Your task to perform on an android device: What's a good restaurant in Chicago? Image 0: 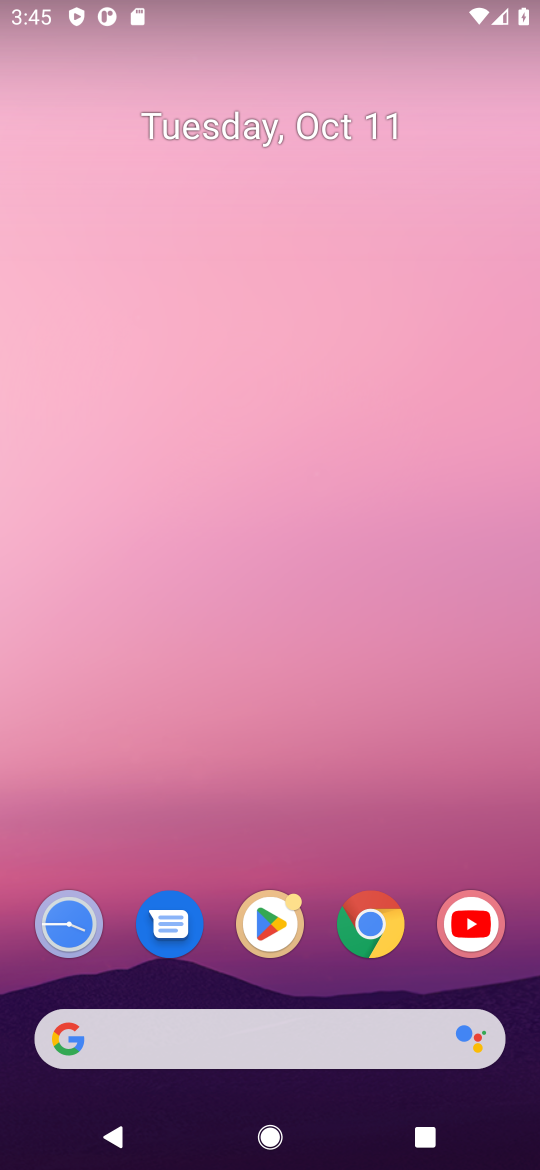
Step 0: press home button
Your task to perform on an android device: What's a good restaurant in Chicago? Image 1: 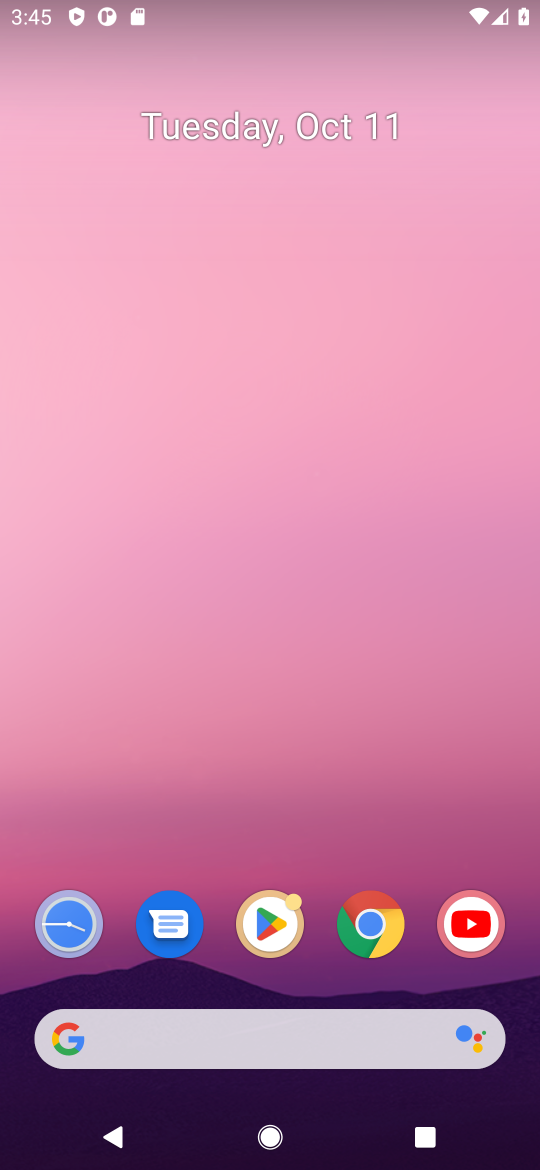
Step 1: drag from (330, 961) to (295, 100)
Your task to perform on an android device: What's a good restaurant in Chicago? Image 2: 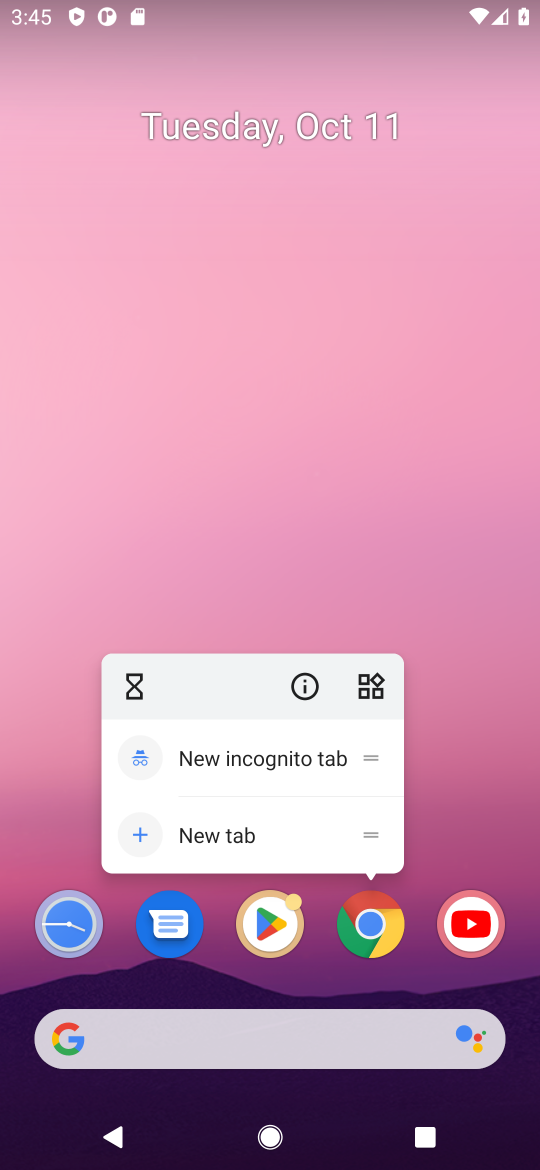
Step 2: click (448, 761)
Your task to perform on an android device: What's a good restaurant in Chicago? Image 3: 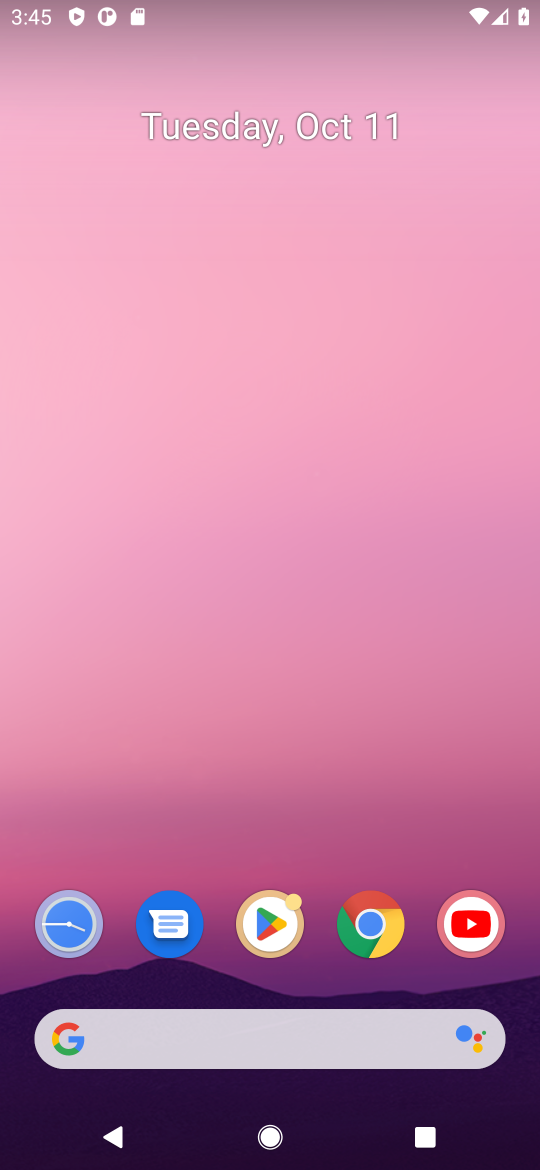
Step 3: drag from (222, 971) to (220, 197)
Your task to perform on an android device: What's a good restaurant in Chicago? Image 4: 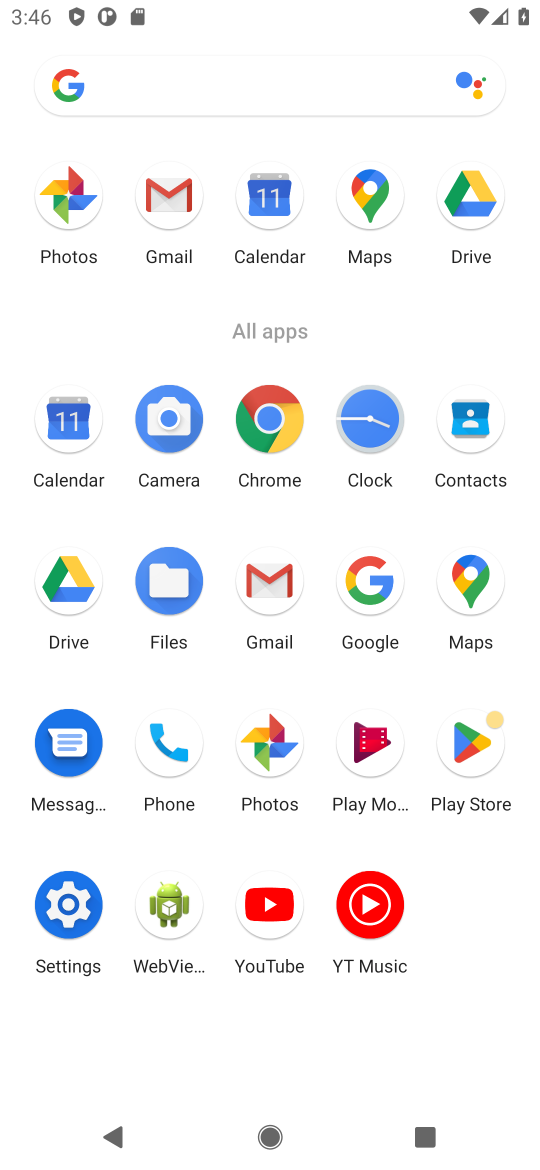
Step 4: click (278, 423)
Your task to perform on an android device: What's a good restaurant in Chicago? Image 5: 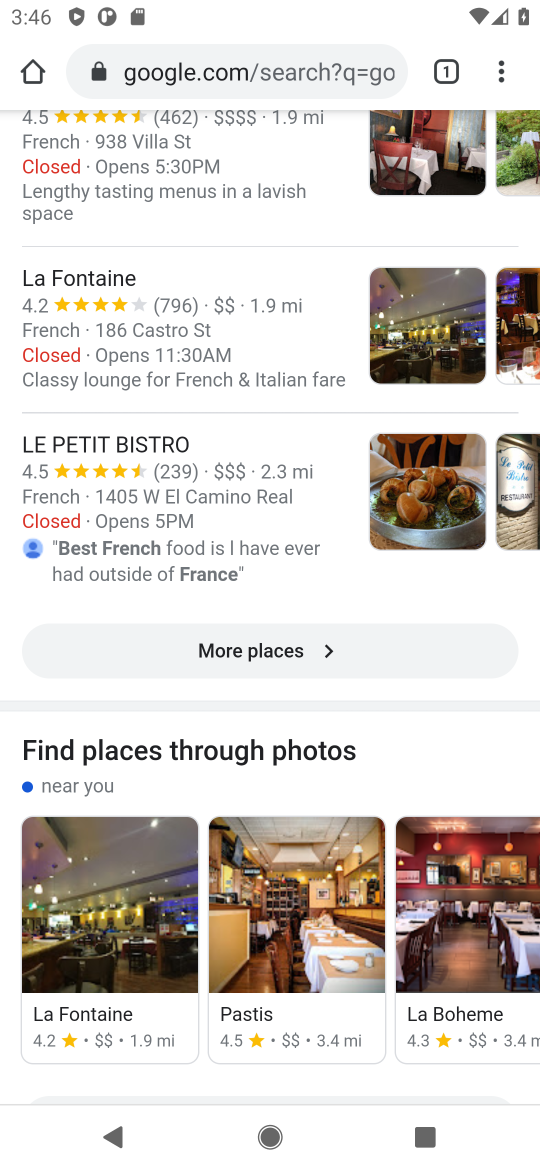
Step 5: click (156, 76)
Your task to perform on an android device: What's a good restaurant in Chicago? Image 6: 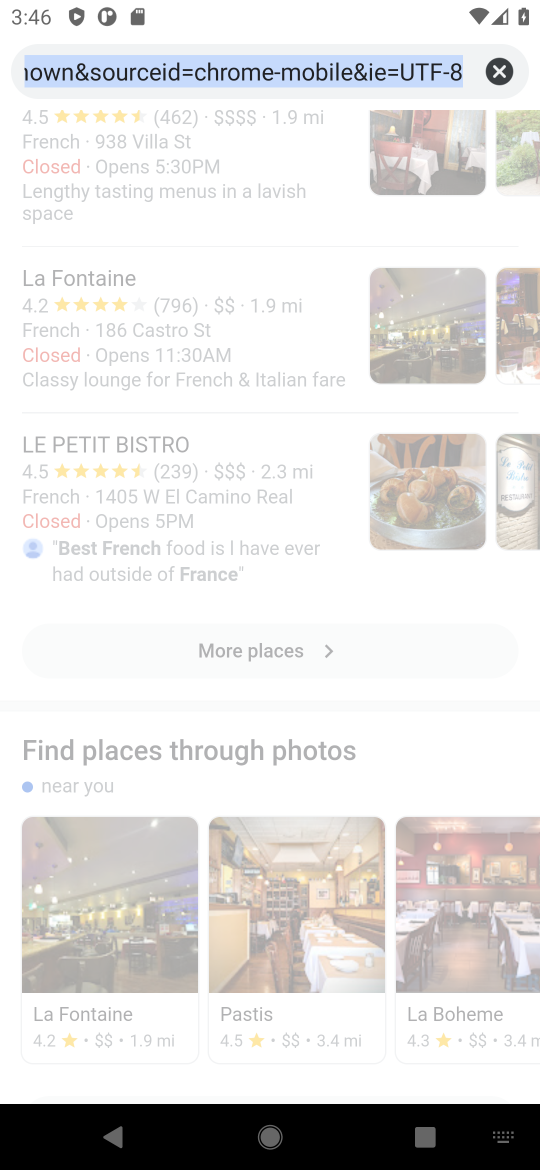
Step 6: type "What's a good restaurant in Chicago?"
Your task to perform on an android device: What's a good restaurant in Chicago? Image 7: 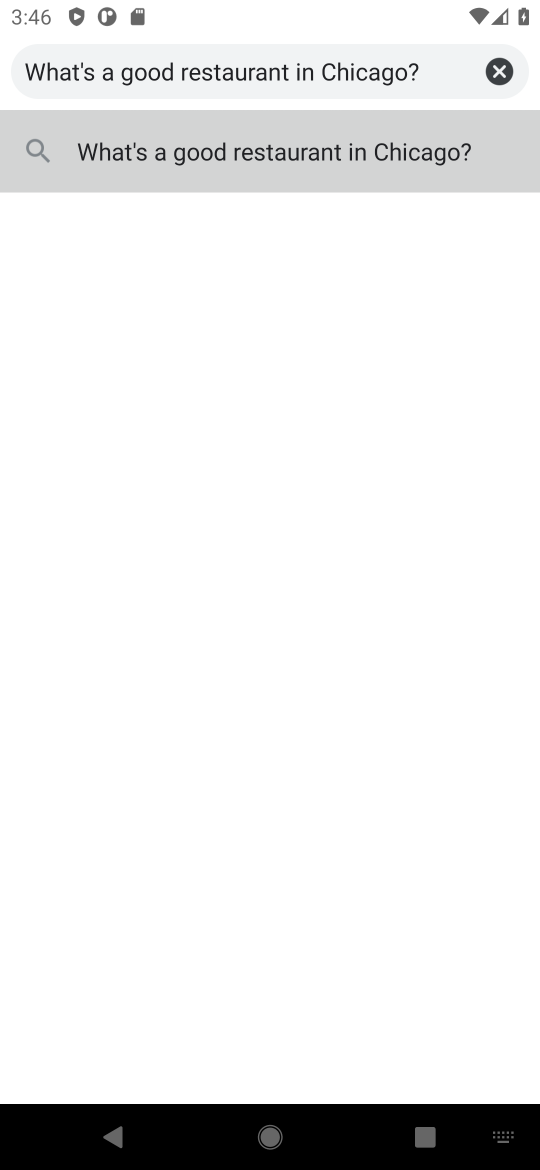
Step 7: press enter
Your task to perform on an android device: What's a good restaurant in Chicago? Image 8: 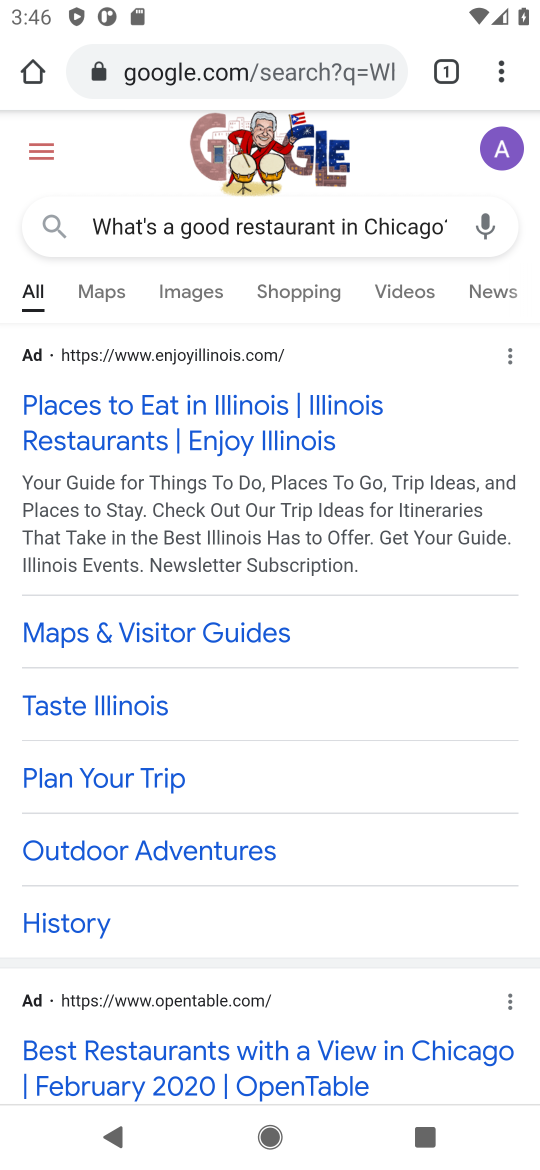
Step 8: press enter
Your task to perform on an android device: What's a good restaurant in Chicago? Image 9: 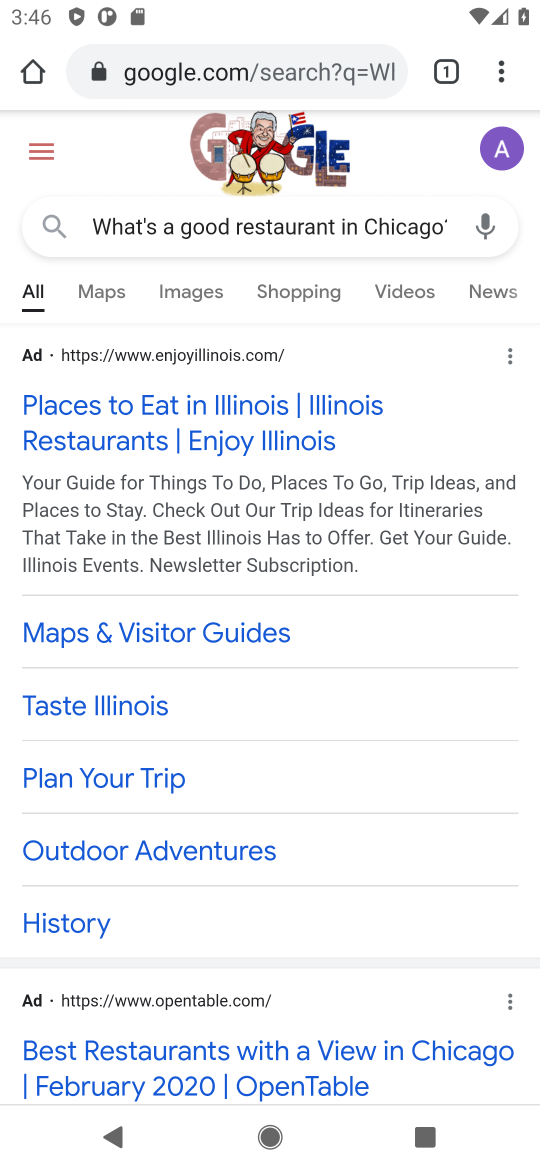
Step 9: task complete